Your task to perform on an android device: Do I have any events this weekend? Image 0: 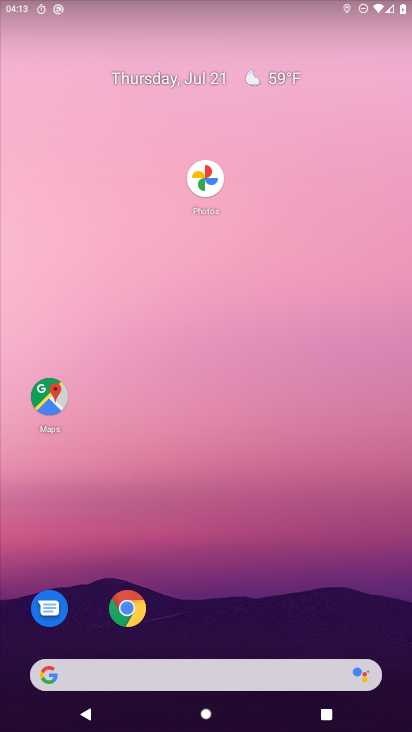
Step 0: drag from (246, 626) to (255, 215)
Your task to perform on an android device: Do I have any events this weekend? Image 1: 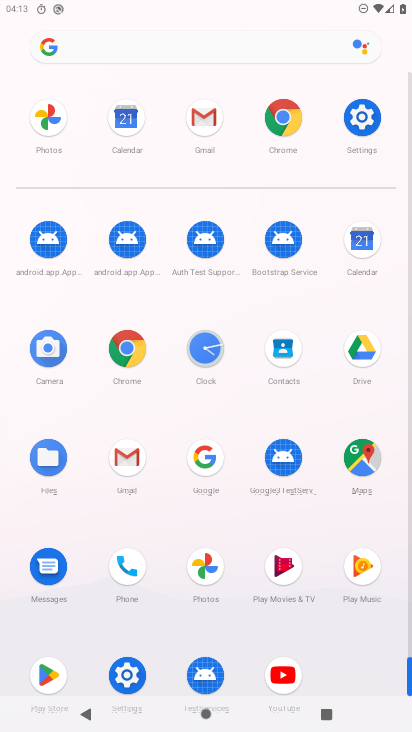
Step 1: click (355, 240)
Your task to perform on an android device: Do I have any events this weekend? Image 2: 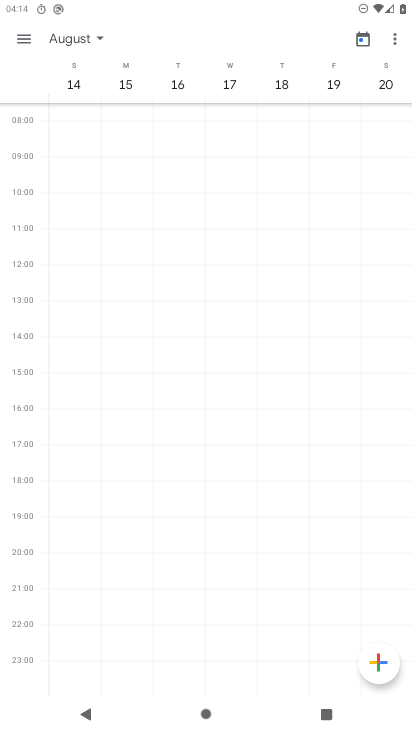
Step 2: click (96, 35)
Your task to perform on an android device: Do I have any events this weekend? Image 3: 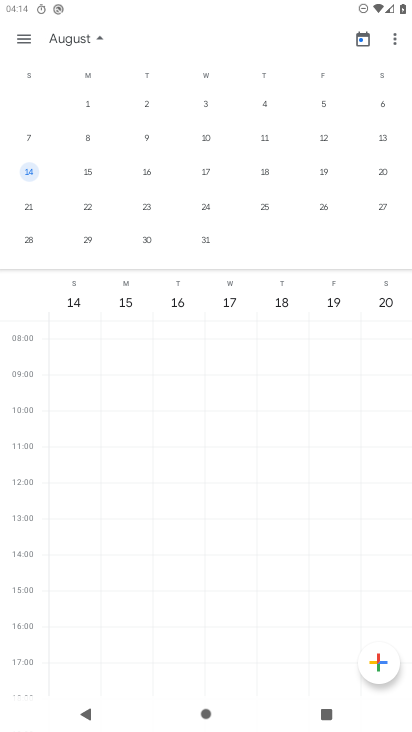
Step 3: drag from (31, 178) to (386, 193)
Your task to perform on an android device: Do I have any events this weekend? Image 4: 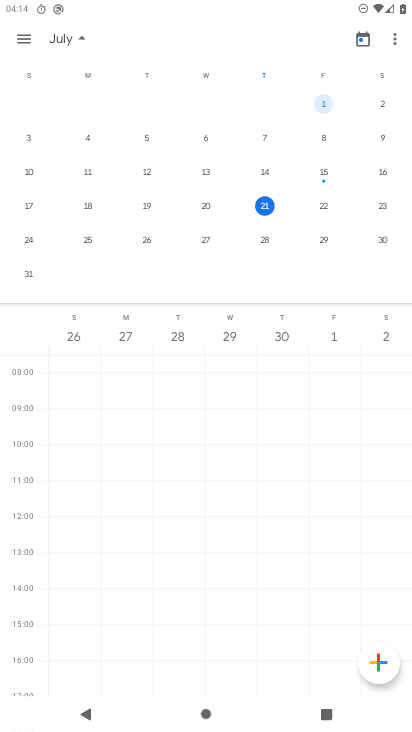
Step 4: click (260, 203)
Your task to perform on an android device: Do I have any events this weekend? Image 5: 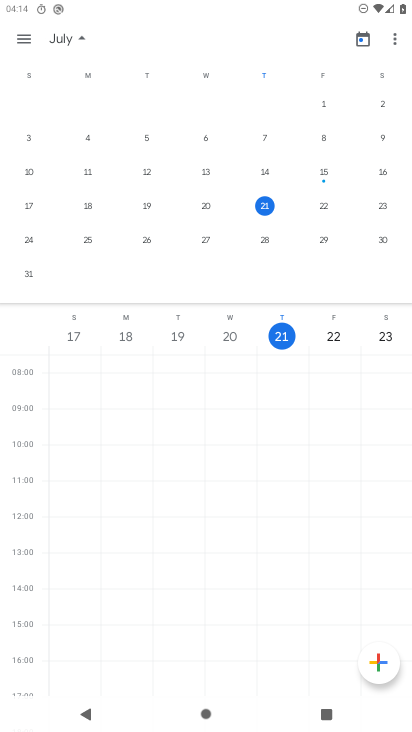
Step 5: task complete